Your task to perform on an android device: Go to settings Image 0: 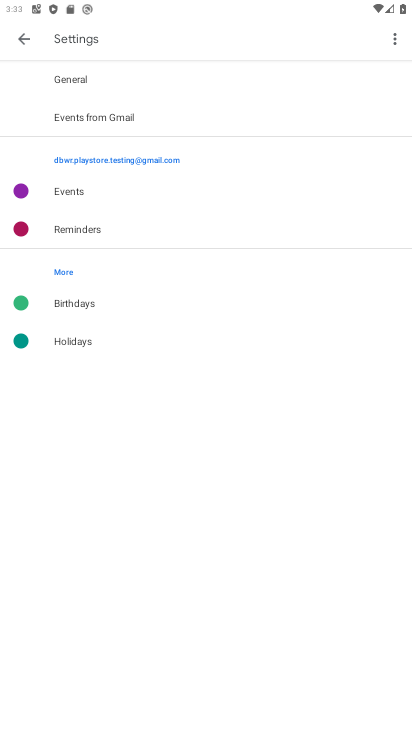
Step 0: press home button
Your task to perform on an android device: Go to settings Image 1: 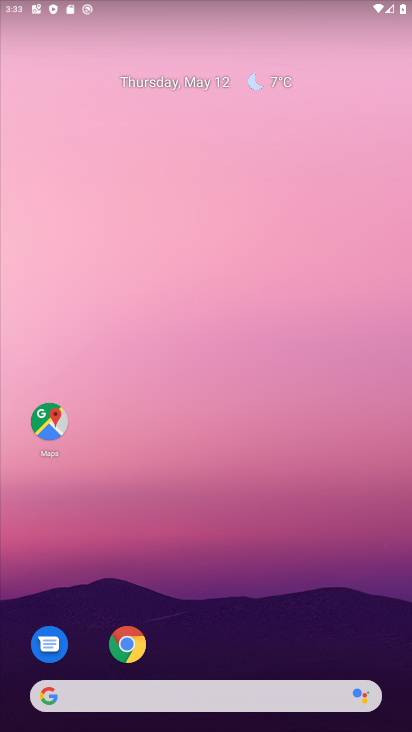
Step 1: drag from (209, 660) to (227, 2)
Your task to perform on an android device: Go to settings Image 2: 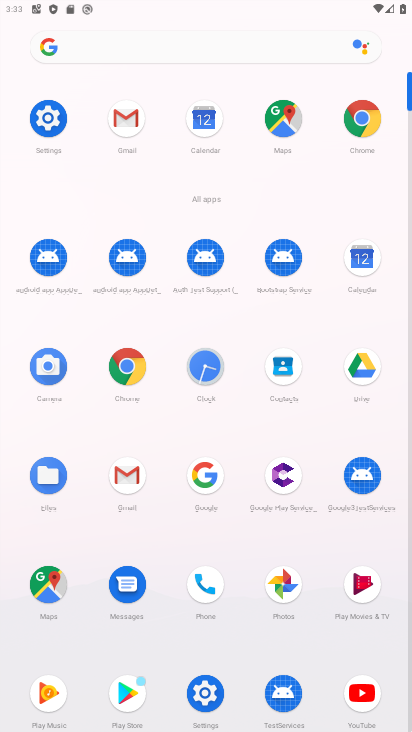
Step 2: click (38, 111)
Your task to perform on an android device: Go to settings Image 3: 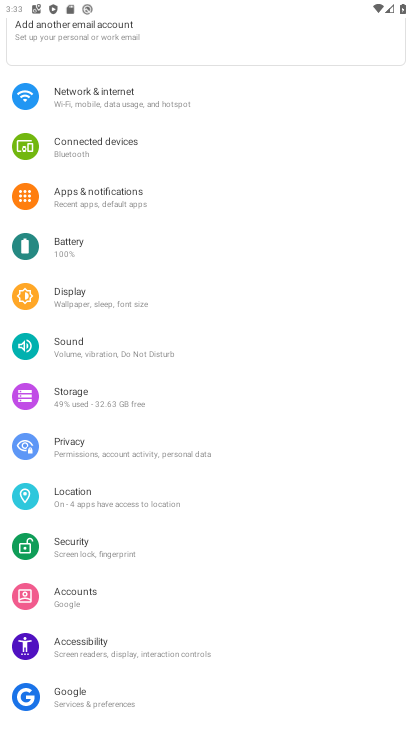
Step 3: task complete